Your task to perform on an android device: delete browsing data in the chrome app Image 0: 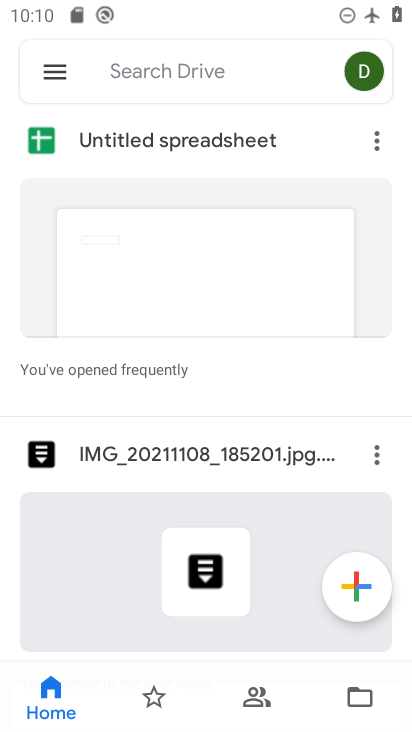
Step 0: press home button
Your task to perform on an android device: delete browsing data in the chrome app Image 1: 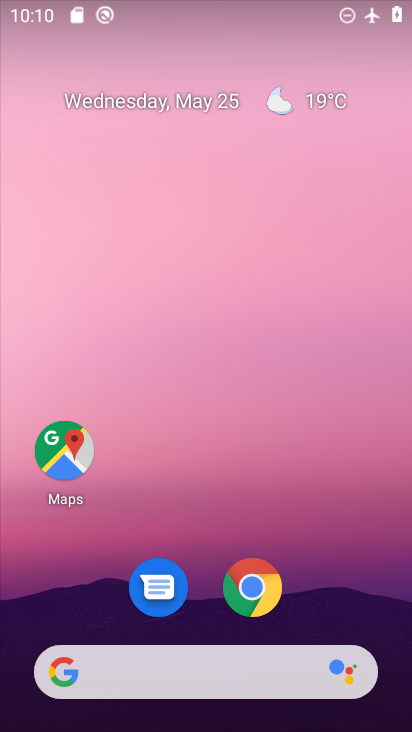
Step 1: click (253, 589)
Your task to perform on an android device: delete browsing data in the chrome app Image 2: 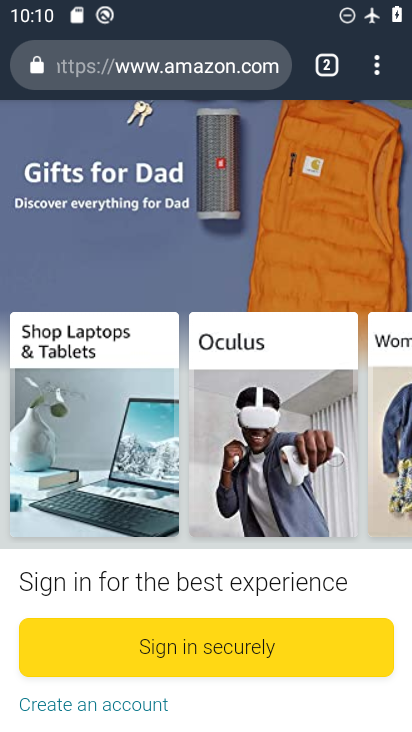
Step 2: click (375, 71)
Your task to perform on an android device: delete browsing data in the chrome app Image 3: 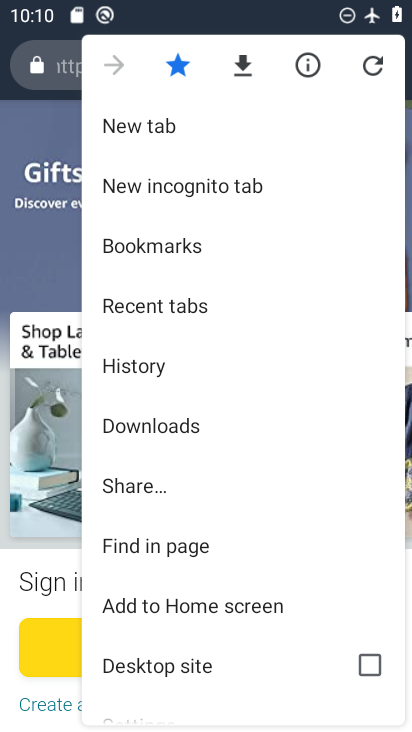
Step 3: click (138, 360)
Your task to perform on an android device: delete browsing data in the chrome app Image 4: 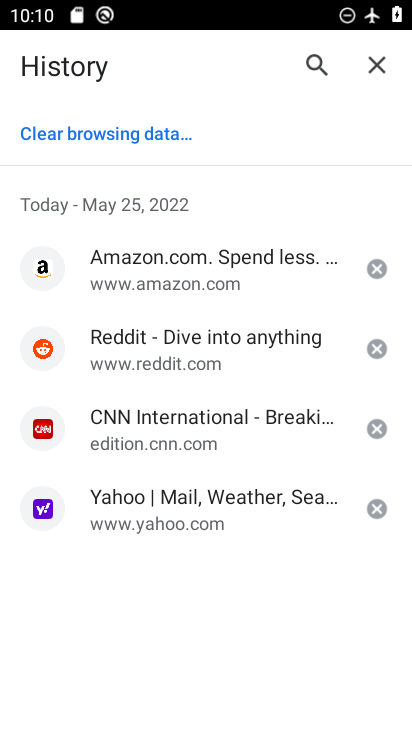
Step 4: click (101, 137)
Your task to perform on an android device: delete browsing data in the chrome app Image 5: 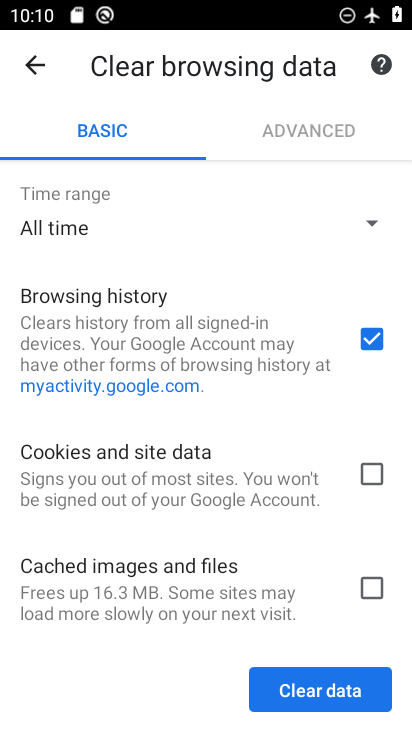
Step 5: click (317, 685)
Your task to perform on an android device: delete browsing data in the chrome app Image 6: 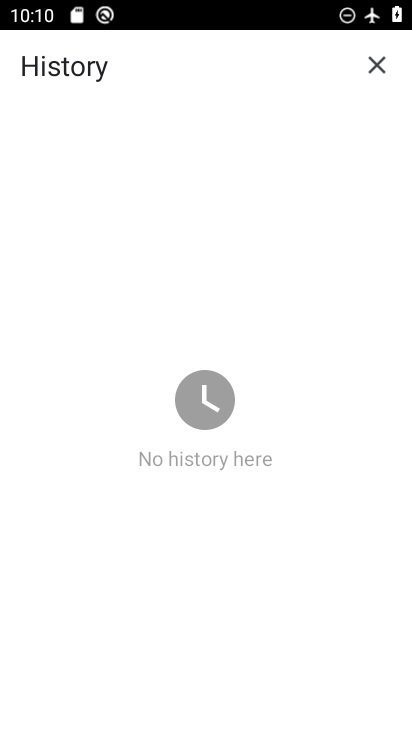
Step 6: task complete